Your task to perform on an android device: toggle pop-ups in chrome Image 0: 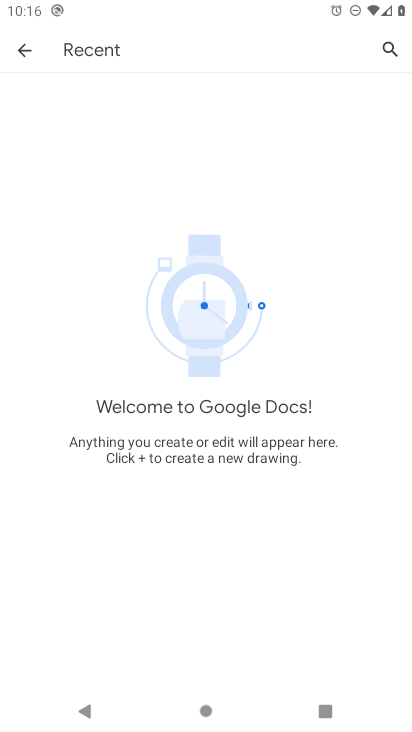
Step 0: press home button
Your task to perform on an android device: toggle pop-ups in chrome Image 1: 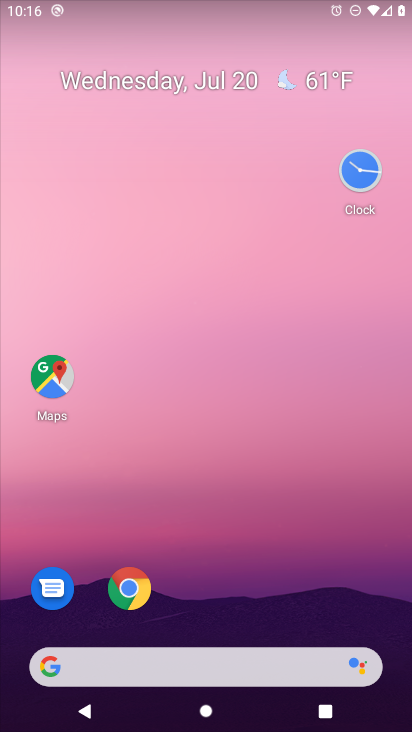
Step 1: click (131, 580)
Your task to perform on an android device: toggle pop-ups in chrome Image 2: 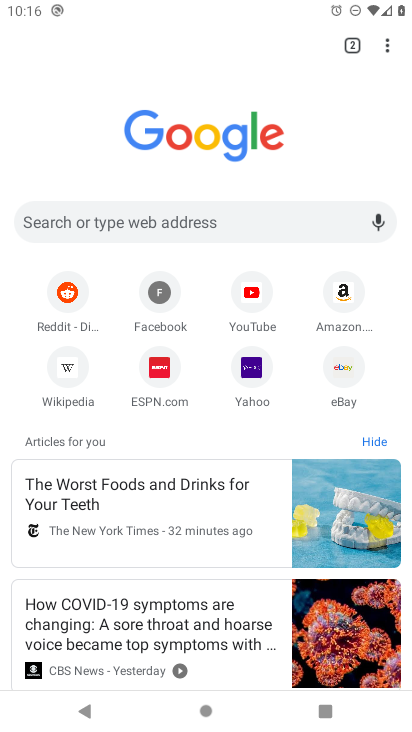
Step 2: click (389, 45)
Your task to perform on an android device: toggle pop-ups in chrome Image 3: 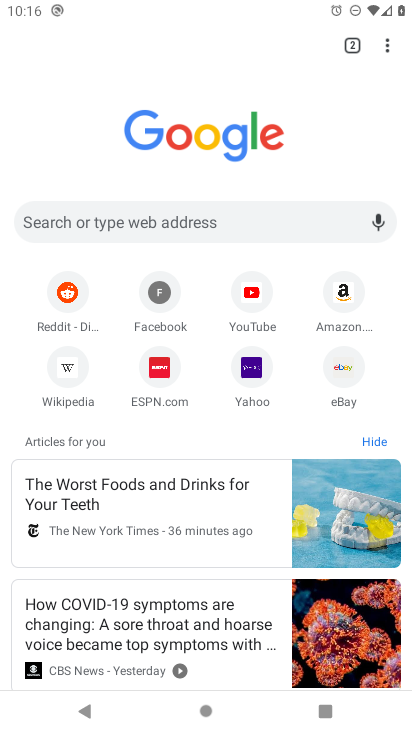
Step 3: click (391, 47)
Your task to perform on an android device: toggle pop-ups in chrome Image 4: 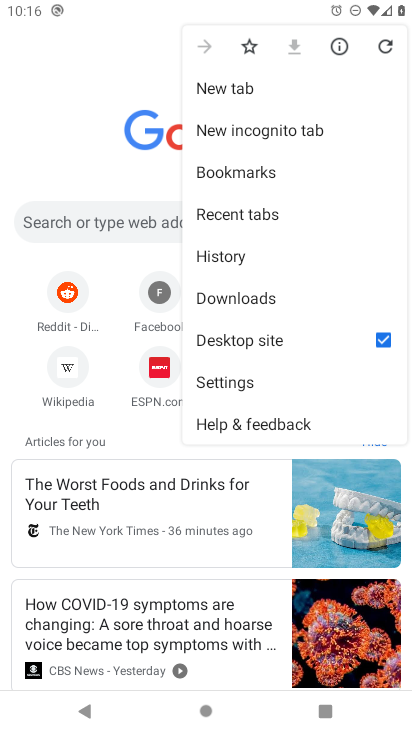
Step 4: click (230, 380)
Your task to perform on an android device: toggle pop-ups in chrome Image 5: 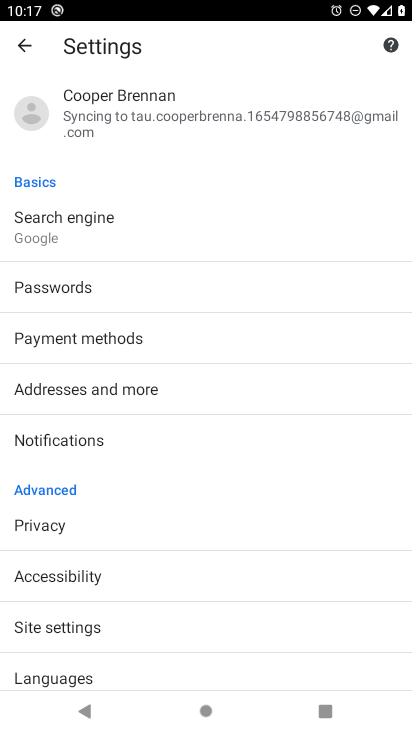
Step 5: click (50, 626)
Your task to perform on an android device: toggle pop-ups in chrome Image 6: 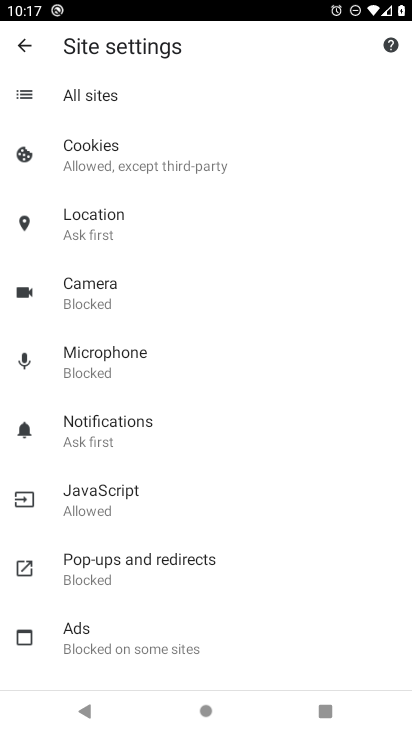
Step 6: click (98, 573)
Your task to perform on an android device: toggle pop-ups in chrome Image 7: 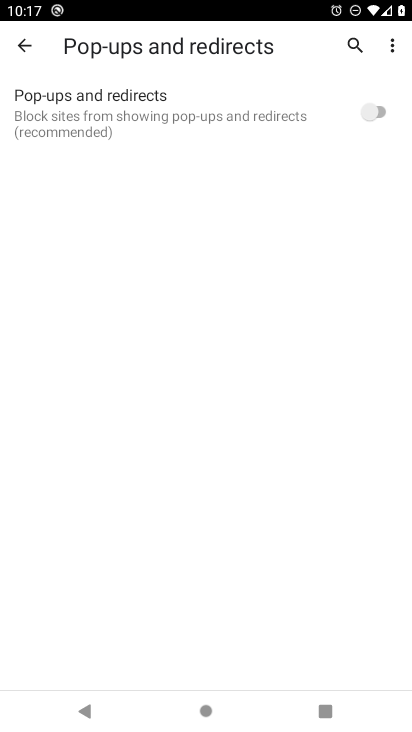
Step 7: click (374, 111)
Your task to perform on an android device: toggle pop-ups in chrome Image 8: 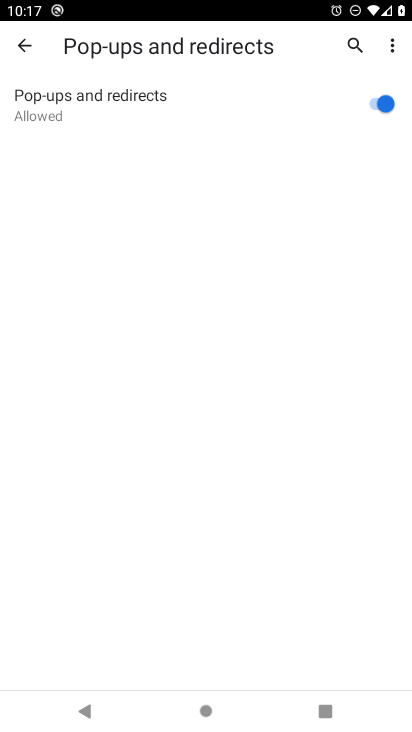
Step 8: task complete